Your task to perform on an android device: Search for top rated burger restaurants on Maps Image 0: 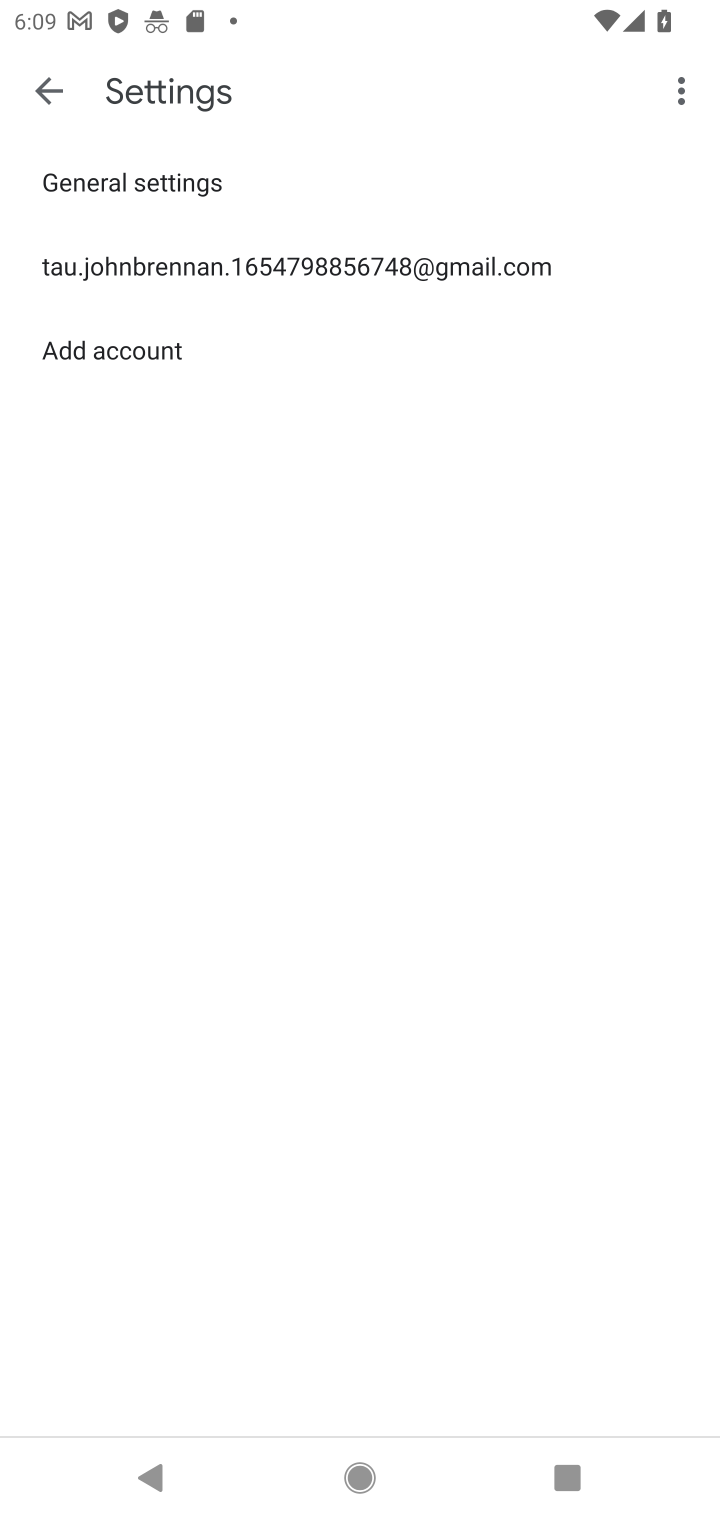
Step 0: press home button
Your task to perform on an android device: Search for top rated burger restaurants on Maps Image 1: 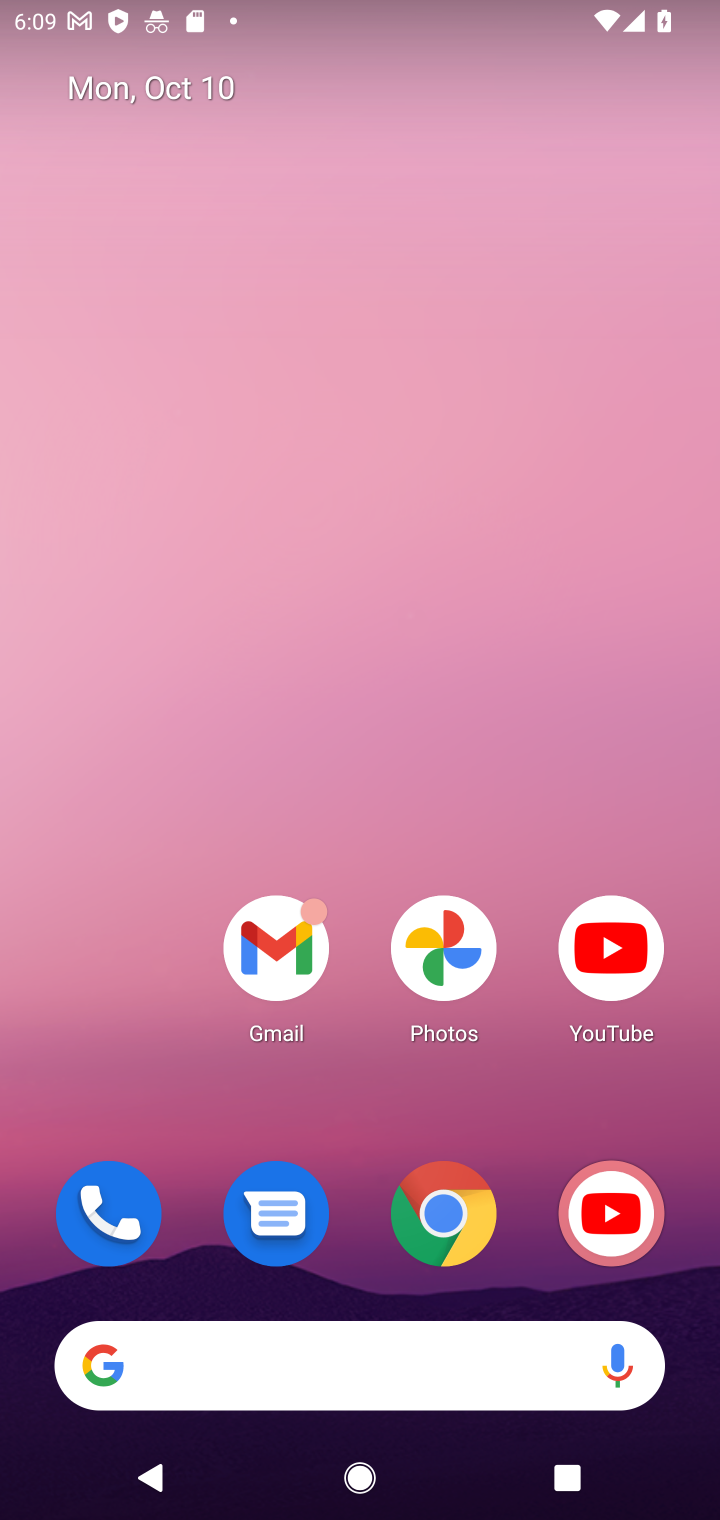
Step 1: drag from (399, 1130) to (551, 158)
Your task to perform on an android device: Search for top rated burger restaurants on Maps Image 2: 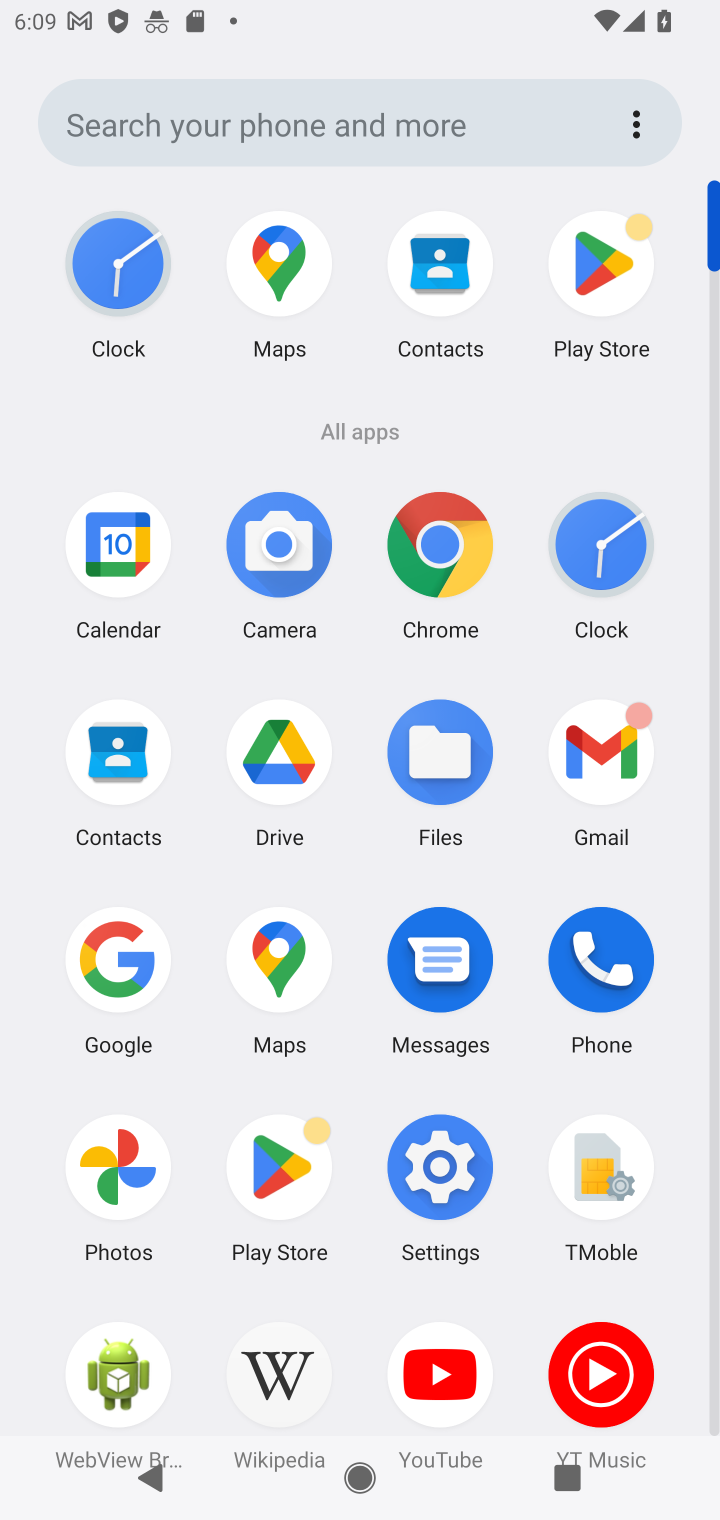
Step 2: click (275, 972)
Your task to perform on an android device: Search for top rated burger restaurants on Maps Image 3: 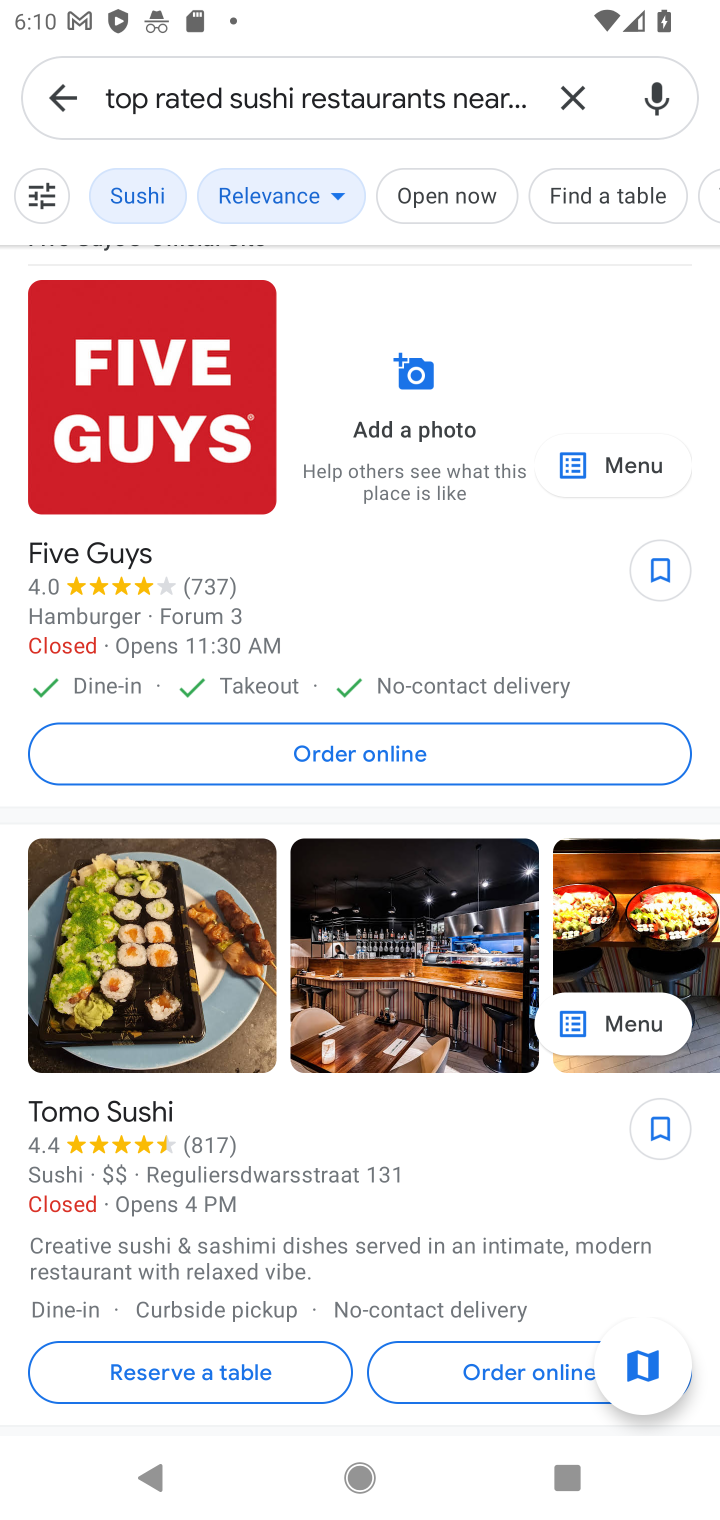
Step 3: click (556, 101)
Your task to perform on an android device: Search for top rated burger restaurants on Maps Image 4: 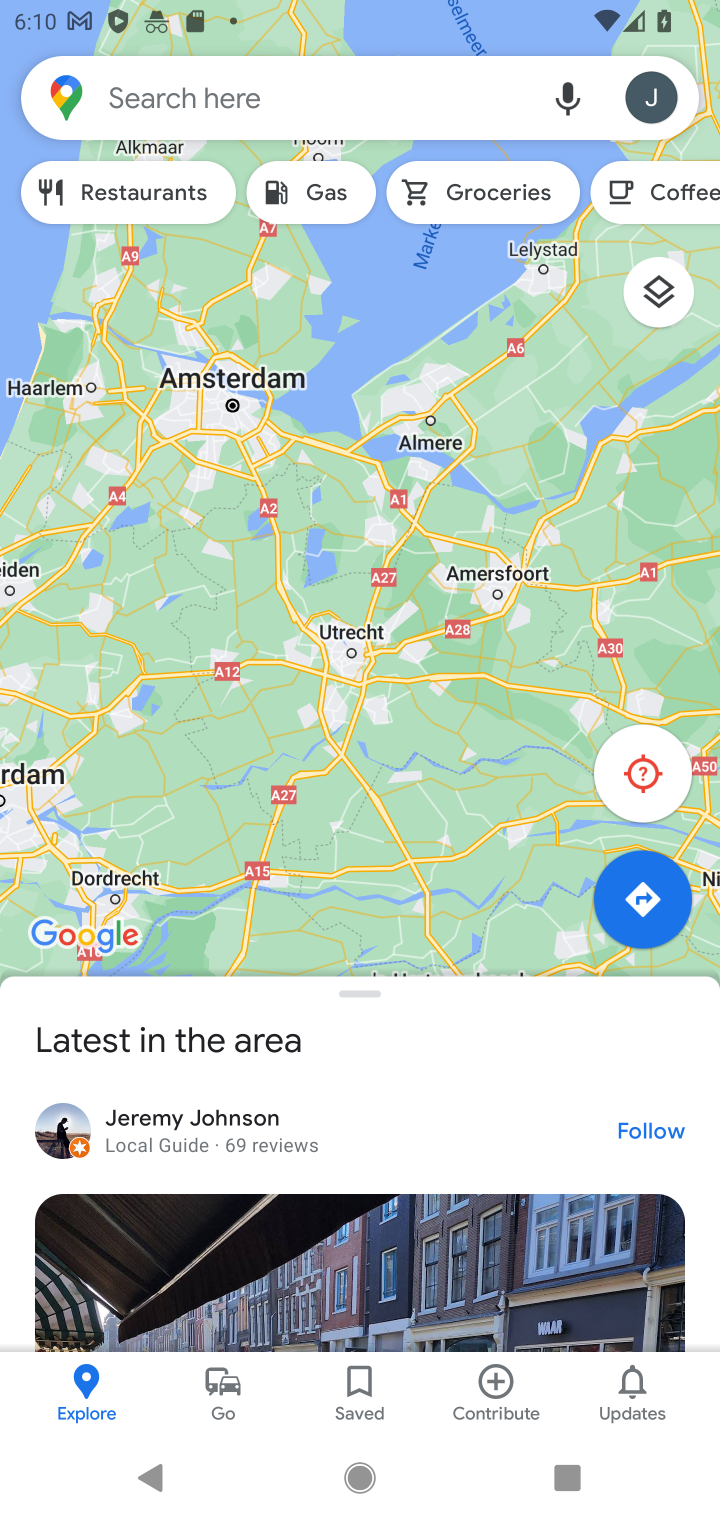
Step 4: click (355, 83)
Your task to perform on an android device: Search for top rated burger restaurants on Maps Image 5: 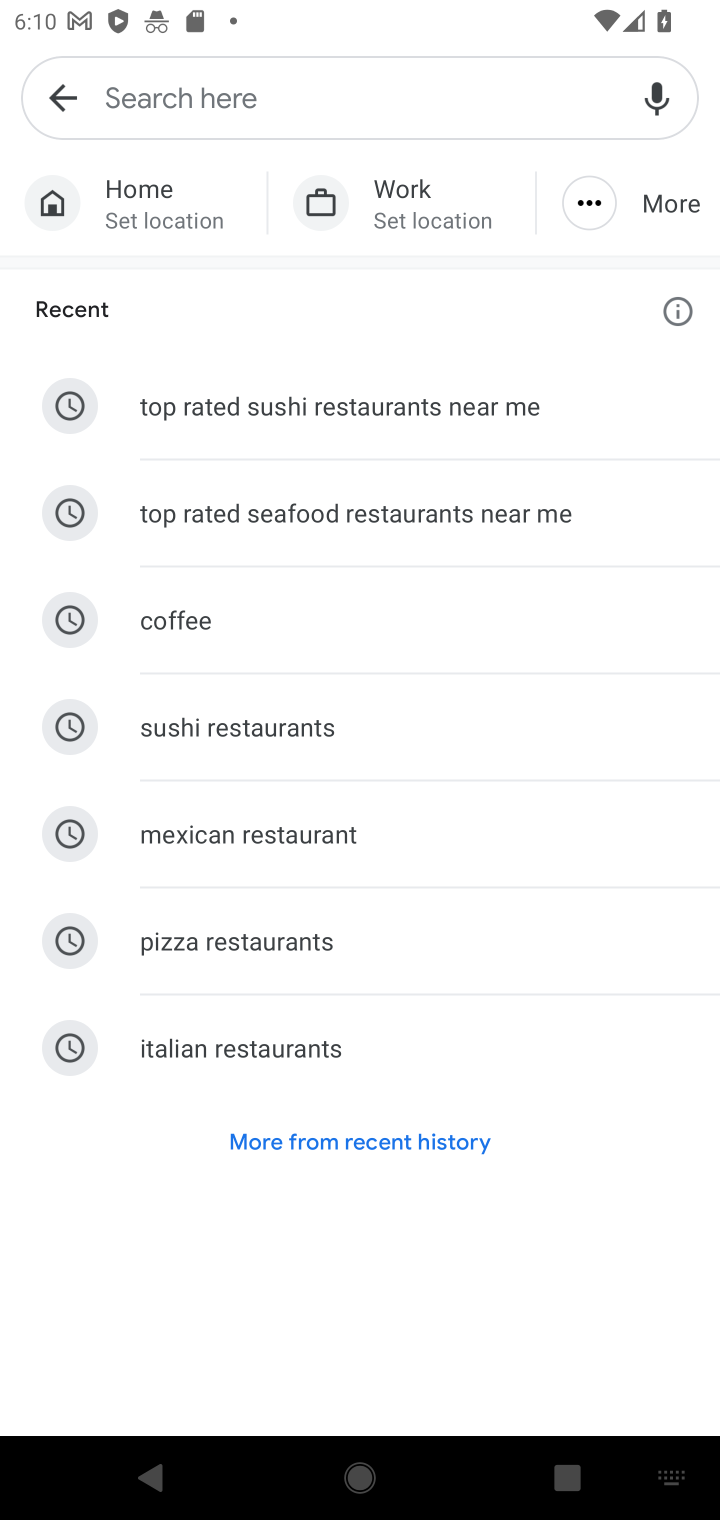
Step 5: type "top rated burger restaurants"
Your task to perform on an android device: Search for top rated burger restaurants on Maps Image 6: 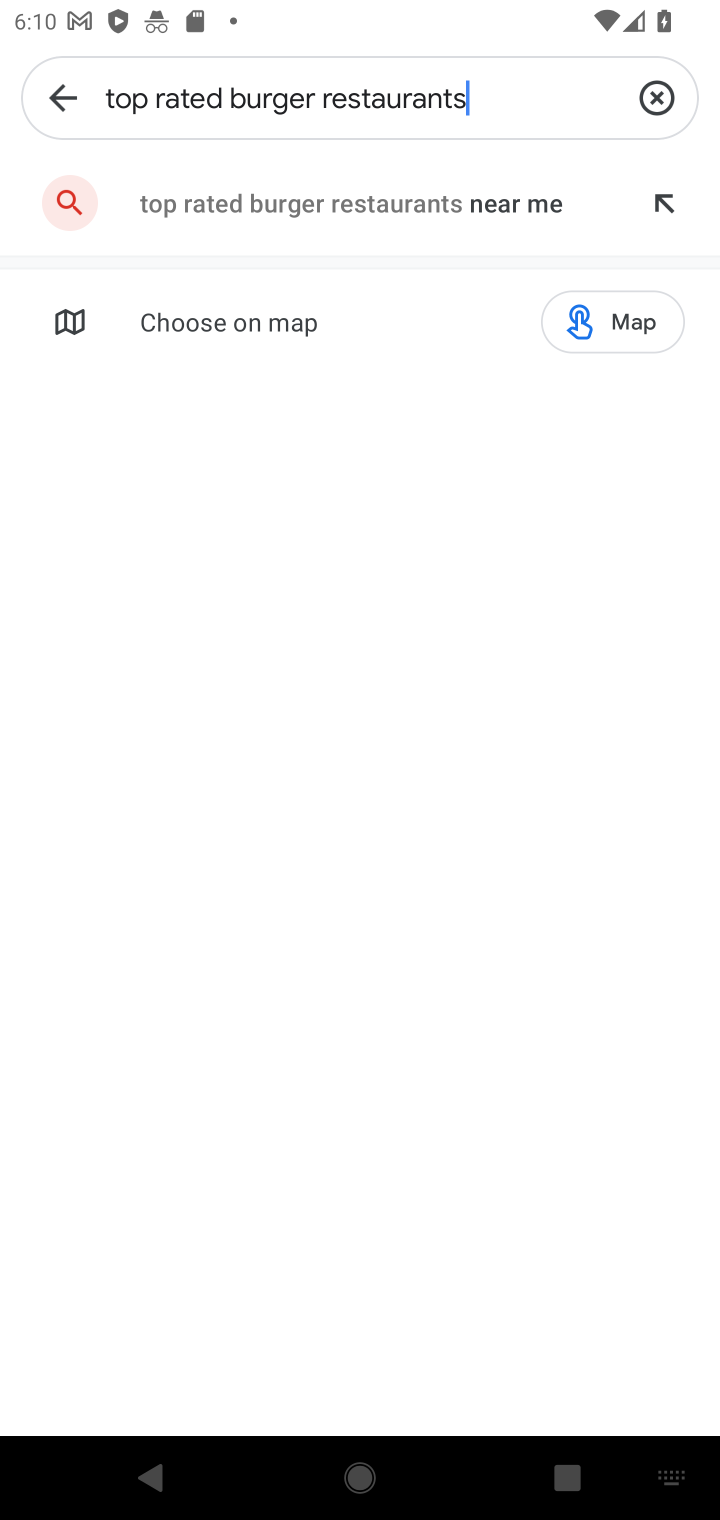
Step 6: click (447, 222)
Your task to perform on an android device: Search for top rated burger restaurants on Maps Image 7: 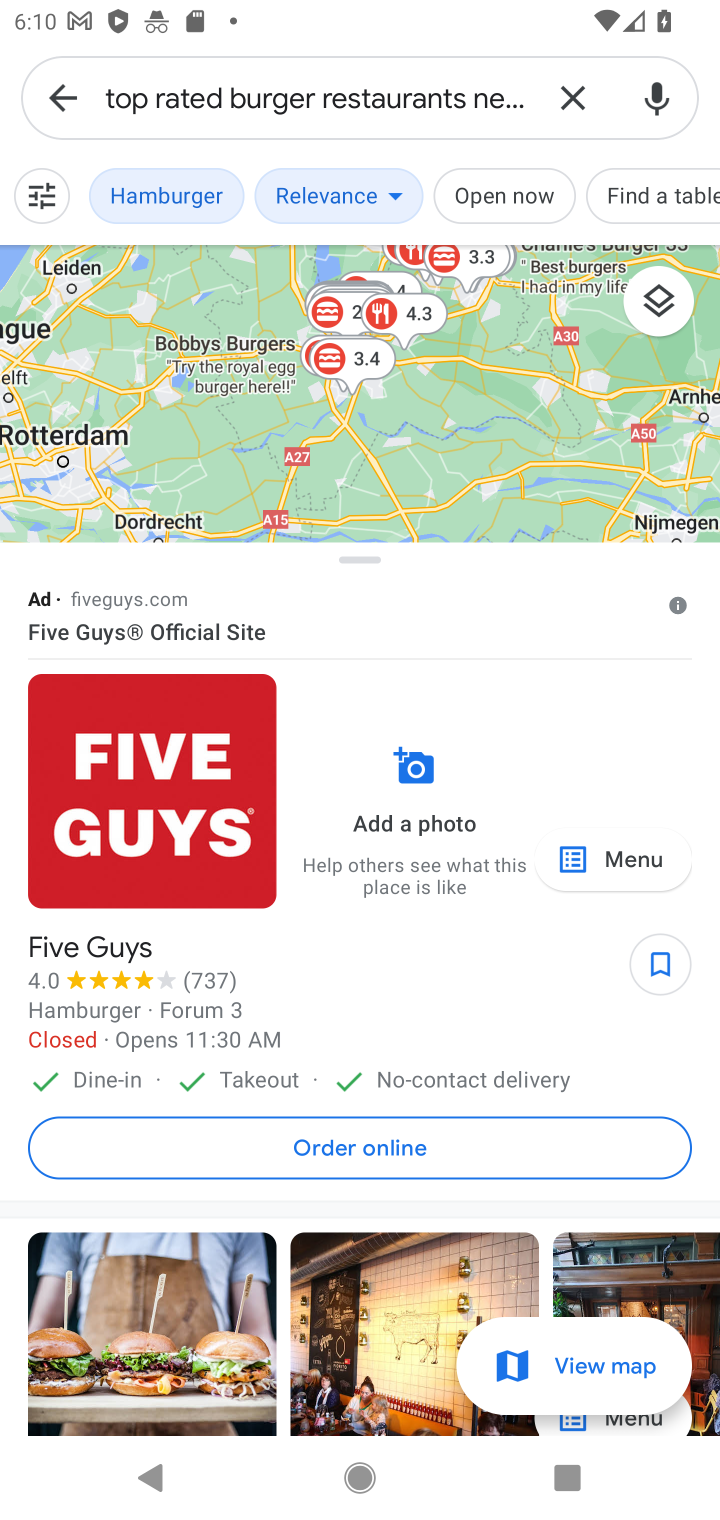
Step 7: task complete